Your task to perform on an android device: Open internet settings Image 0: 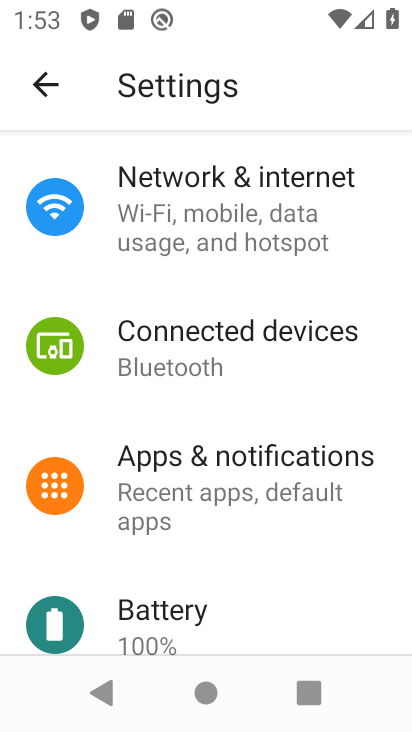
Step 0: press back button
Your task to perform on an android device: Open internet settings Image 1: 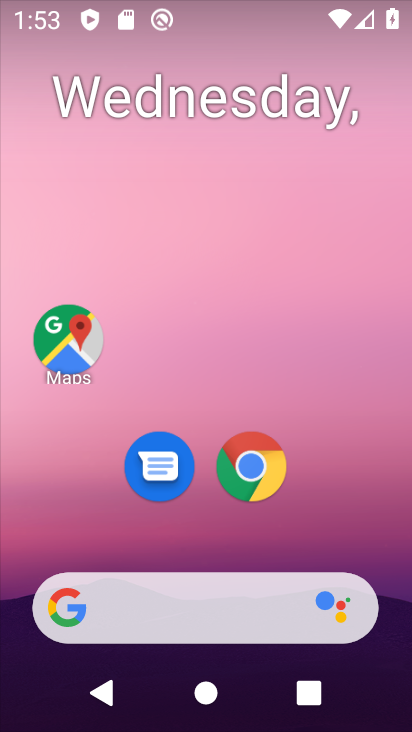
Step 1: drag from (351, 521) to (239, 1)
Your task to perform on an android device: Open internet settings Image 2: 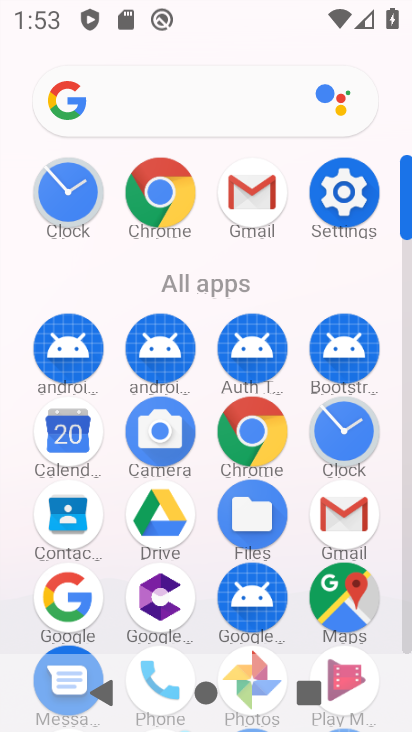
Step 2: click (351, 191)
Your task to perform on an android device: Open internet settings Image 3: 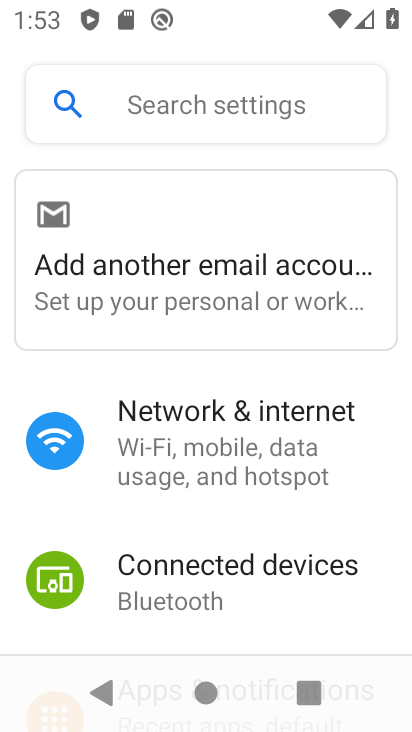
Step 3: click (275, 429)
Your task to perform on an android device: Open internet settings Image 4: 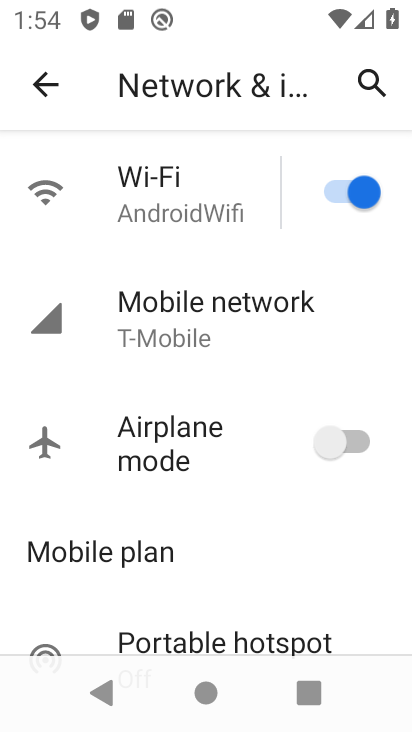
Step 4: click (155, 297)
Your task to perform on an android device: Open internet settings Image 5: 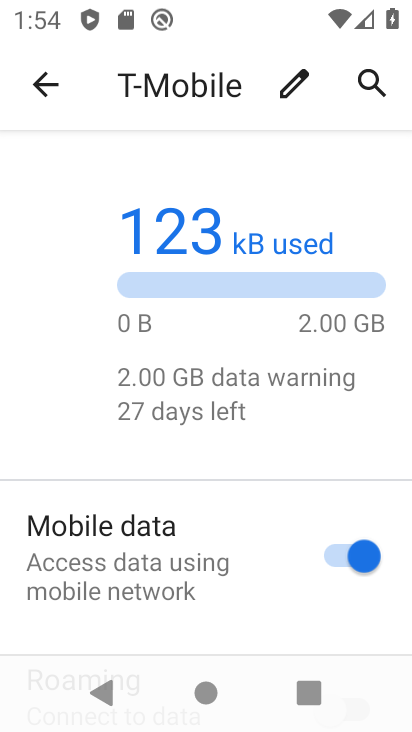
Step 5: task complete